Your task to perform on an android device: Go to battery settings Image 0: 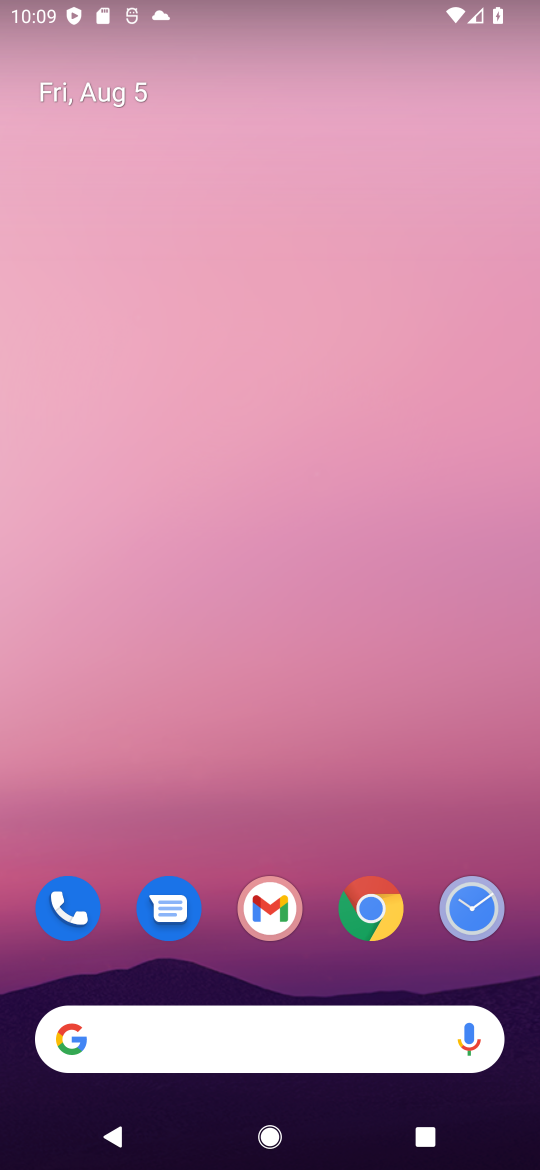
Step 0: task complete